Your task to perform on an android device: Open Google Maps Image 0: 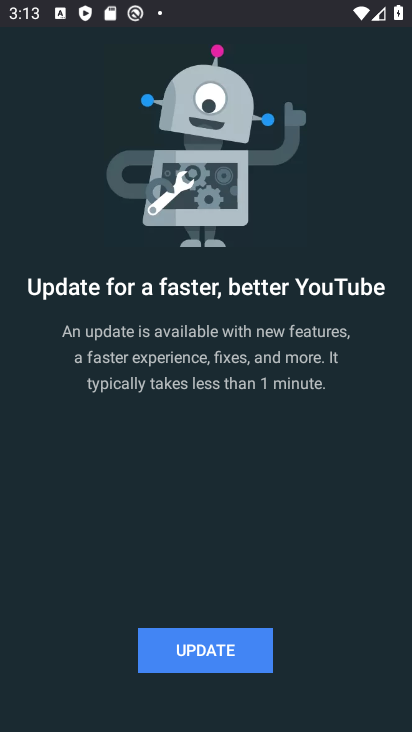
Step 0: press home button
Your task to perform on an android device: Open Google Maps Image 1: 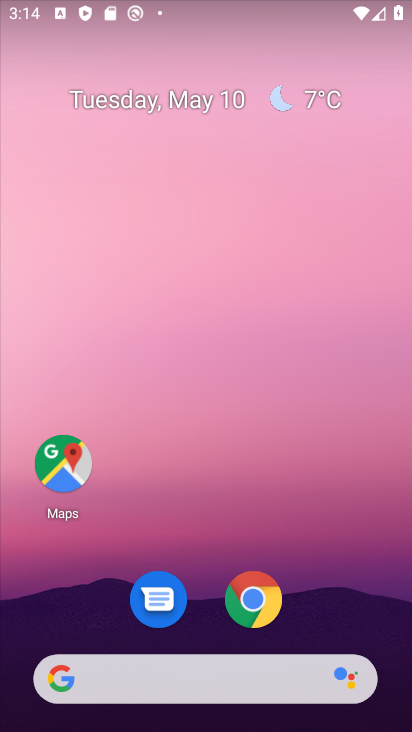
Step 1: drag from (273, 584) to (366, 311)
Your task to perform on an android device: Open Google Maps Image 2: 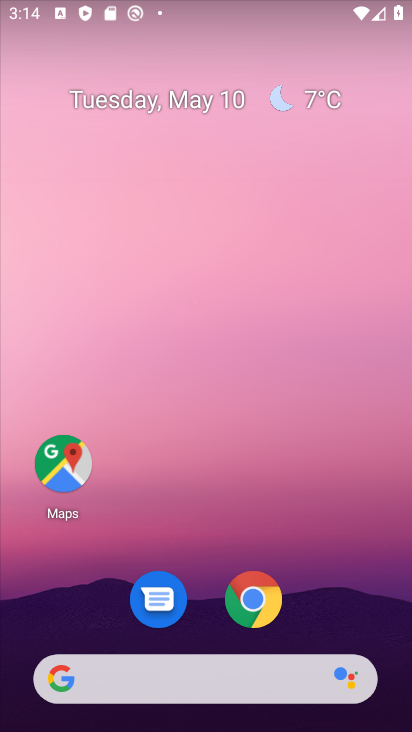
Step 2: click (90, 461)
Your task to perform on an android device: Open Google Maps Image 3: 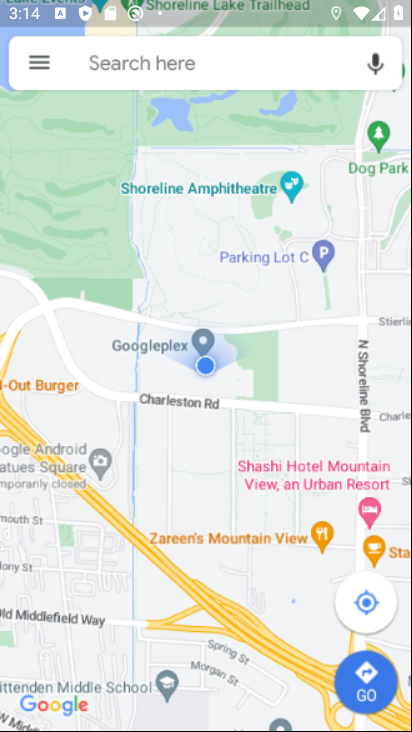
Step 3: click (90, 461)
Your task to perform on an android device: Open Google Maps Image 4: 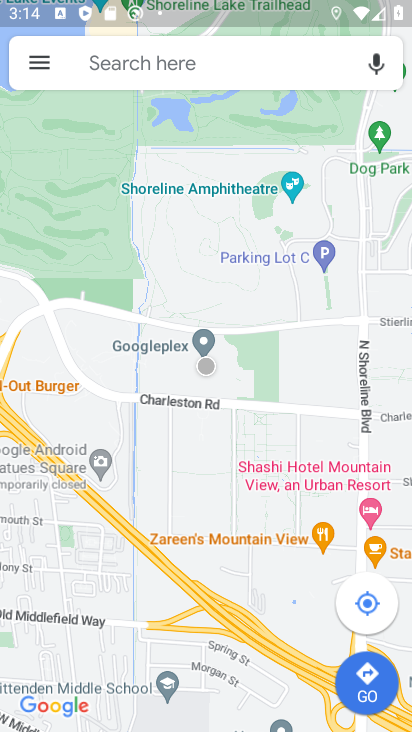
Step 4: click (90, 461)
Your task to perform on an android device: Open Google Maps Image 5: 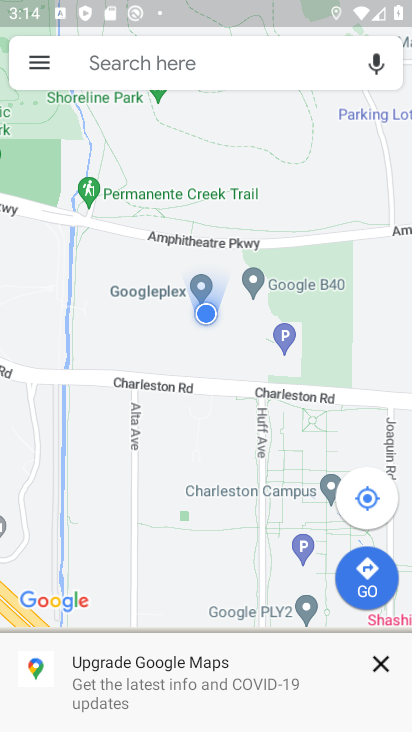
Step 5: task complete